Your task to perform on an android device: Open Google Maps Image 0: 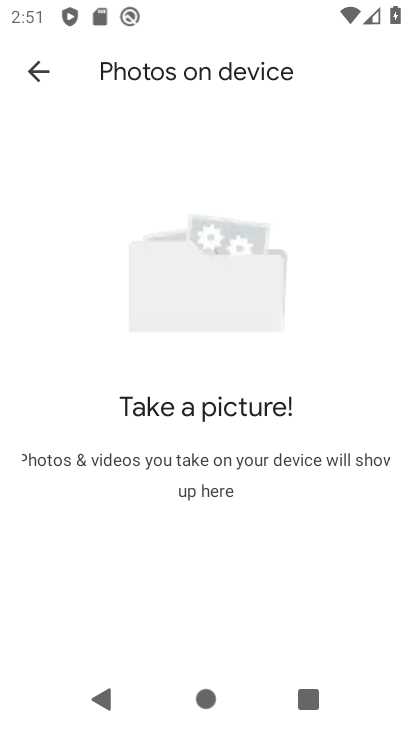
Step 0: press home button
Your task to perform on an android device: Open Google Maps Image 1: 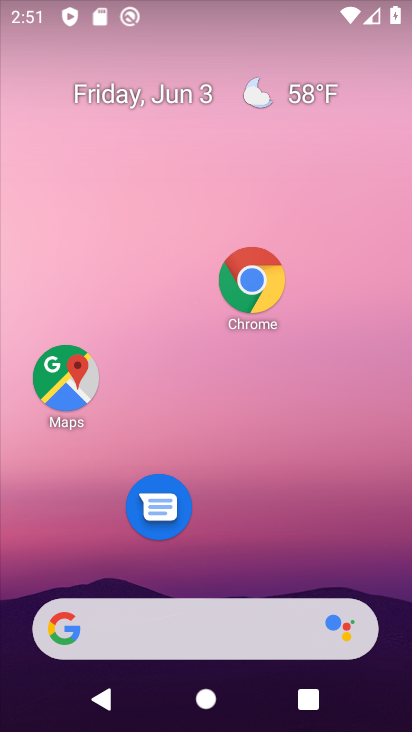
Step 1: click (79, 375)
Your task to perform on an android device: Open Google Maps Image 2: 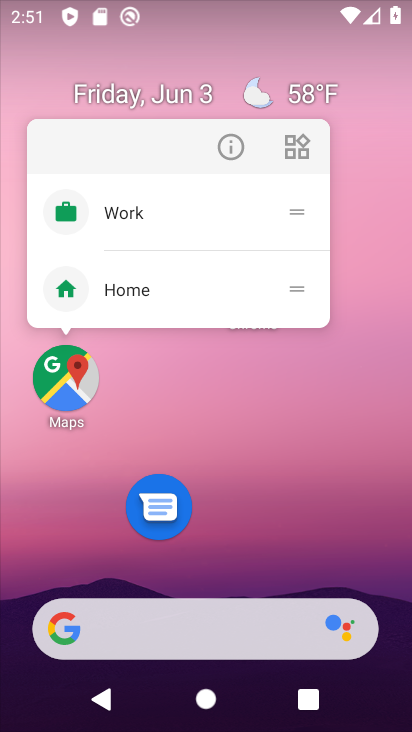
Step 2: click (79, 375)
Your task to perform on an android device: Open Google Maps Image 3: 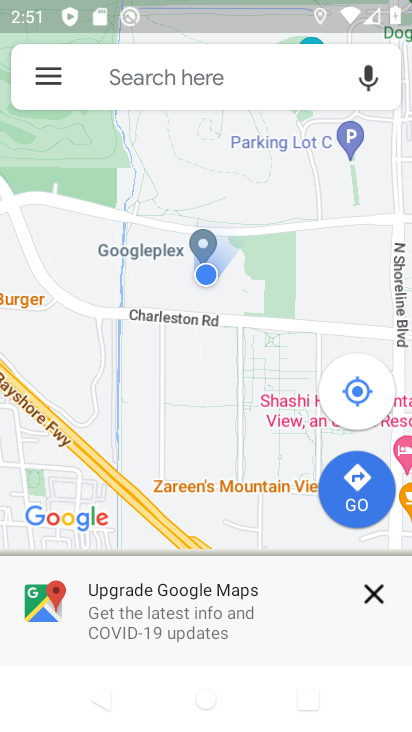
Step 3: task complete